Your task to perform on an android device: set default search engine in the chrome app Image 0: 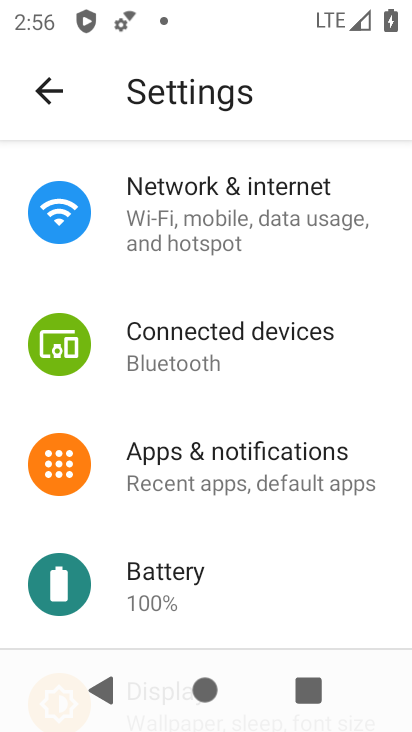
Step 0: press home button
Your task to perform on an android device: set default search engine in the chrome app Image 1: 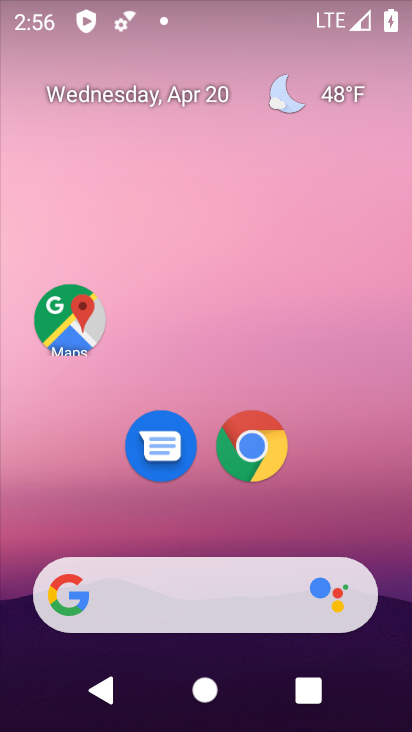
Step 1: click (248, 459)
Your task to perform on an android device: set default search engine in the chrome app Image 2: 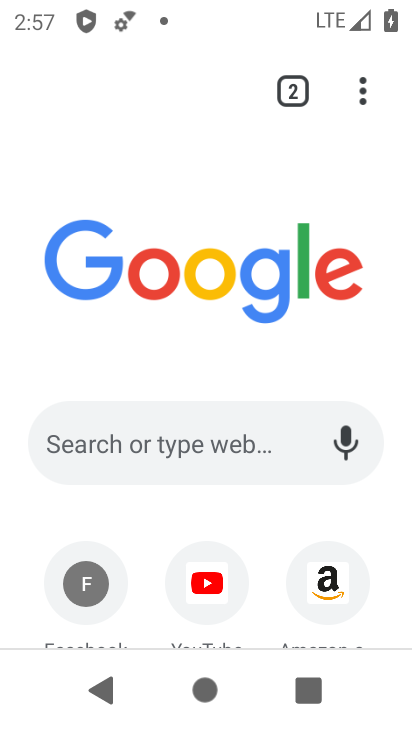
Step 2: click (360, 78)
Your task to perform on an android device: set default search engine in the chrome app Image 3: 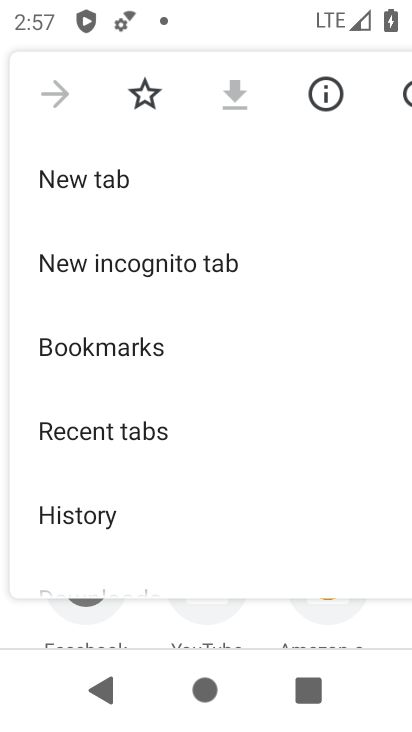
Step 3: drag from (183, 481) to (181, 183)
Your task to perform on an android device: set default search engine in the chrome app Image 4: 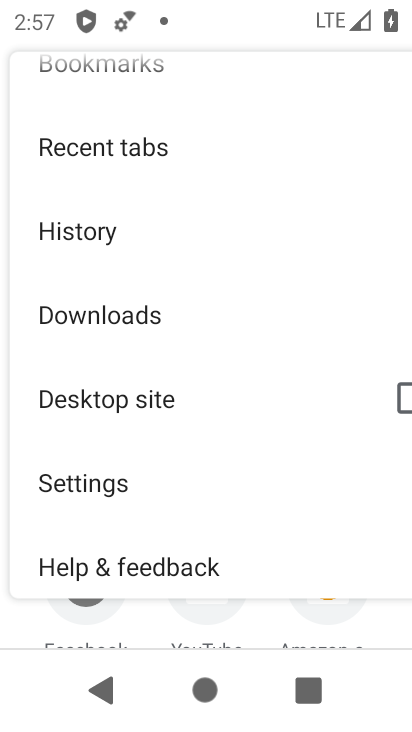
Step 4: click (83, 484)
Your task to perform on an android device: set default search engine in the chrome app Image 5: 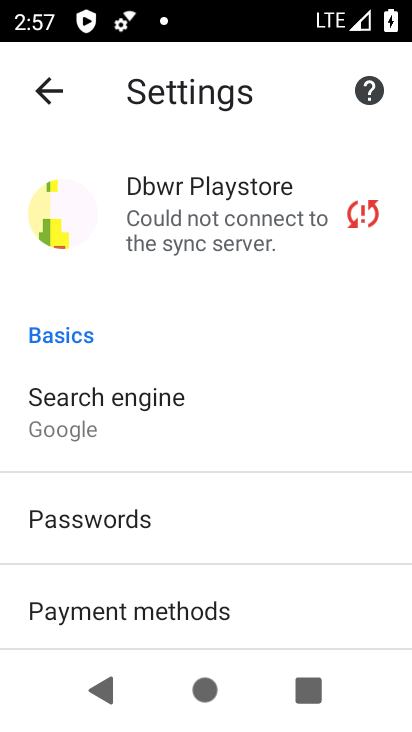
Step 5: click (88, 428)
Your task to perform on an android device: set default search engine in the chrome app Image 6: 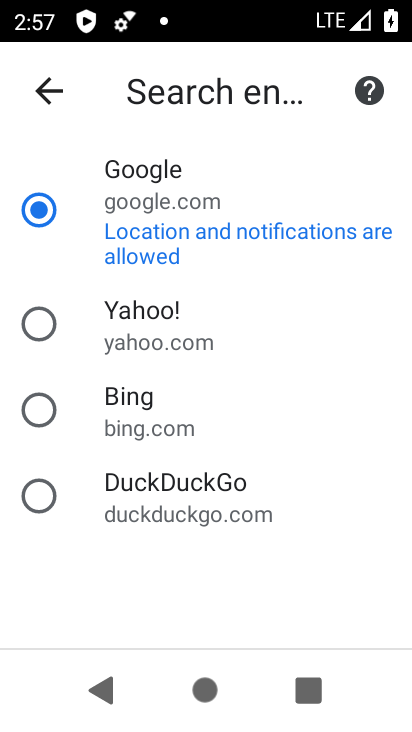
Step 6: click (29, 315)
Your task to perform on an android device: set default search engine in the chrome app Image 7: 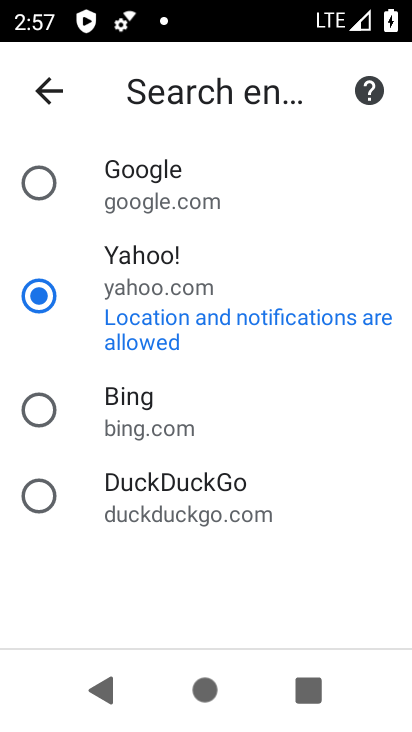
Step 7: task complete